Your task to perform on an android device: turn on improve location accuracy Image 0: 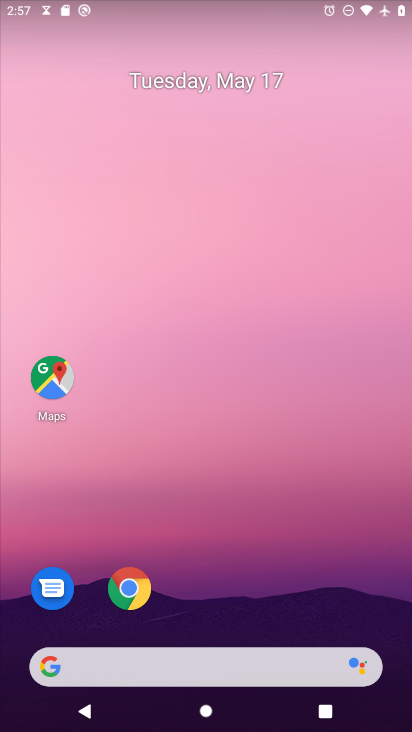
Step 0: drag from (182, 572) to (107, 99)
Your task to perform on an android device: turn on improve location accuracy Image 1: 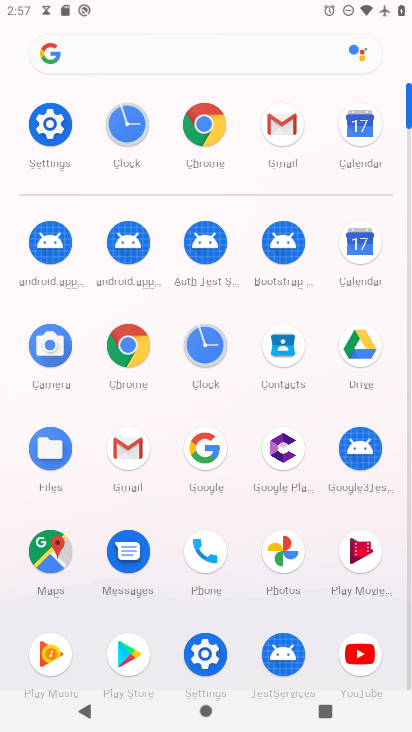
Step 1: click (211, 661)
Your task to perform on an android device: turn on improve location accuracy Image 2: 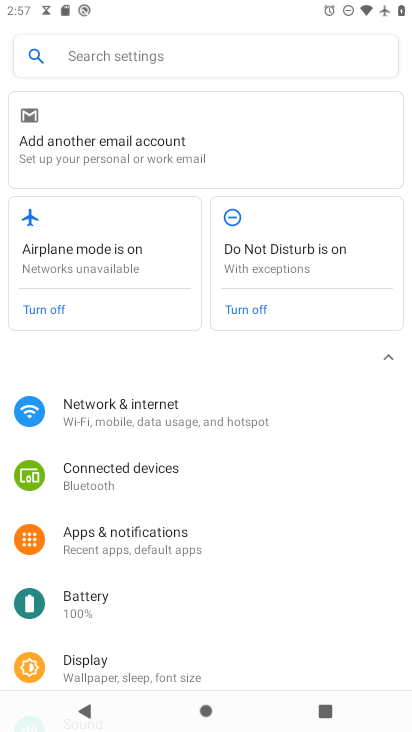
Step 2: drag from (209, 661) to (208, 344)
Your task to perform on an android device: turn on improve location accuracy Image 3: 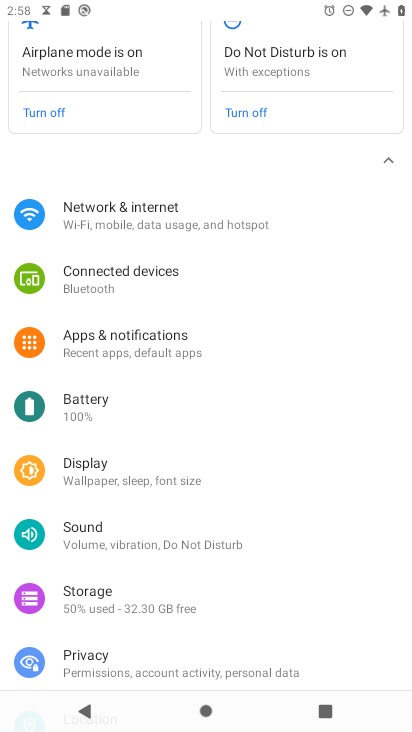
Step 3: click (395, 158)
Your task to perform on an android device: turn on improve location accuracy Image 4: 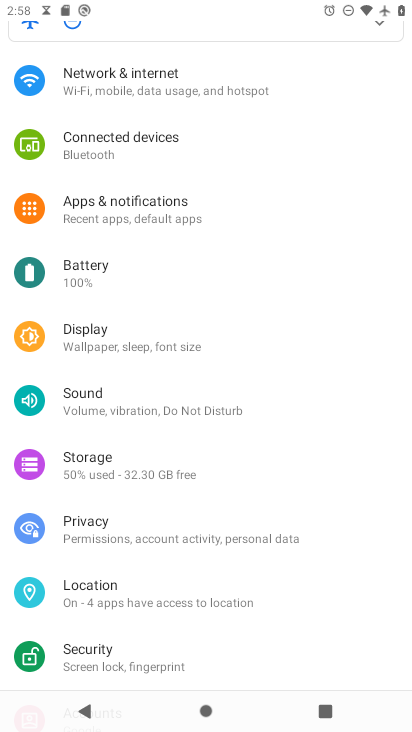
Step 4: click (114, 596)
Your task to perform on an android device: turn on improve location accuracy Image 5: 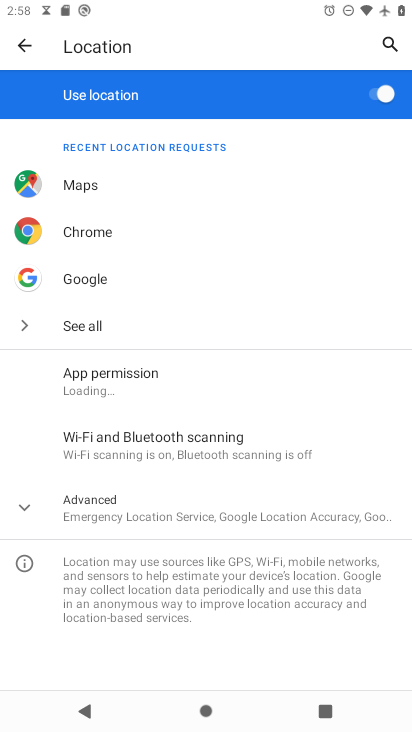
Step 5: click (146, 513)
Your task to perform on an android device: turn on improve location accuracy Image 6: 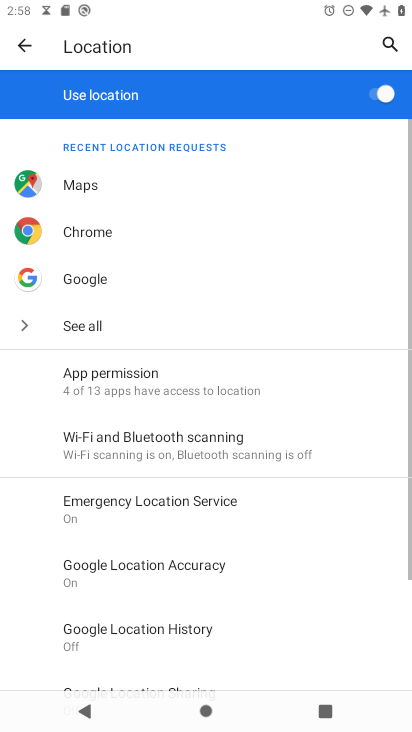
Step 6: click (187, 561)
Your task to perform on an android device: turn on improve location accuracy Image 7: 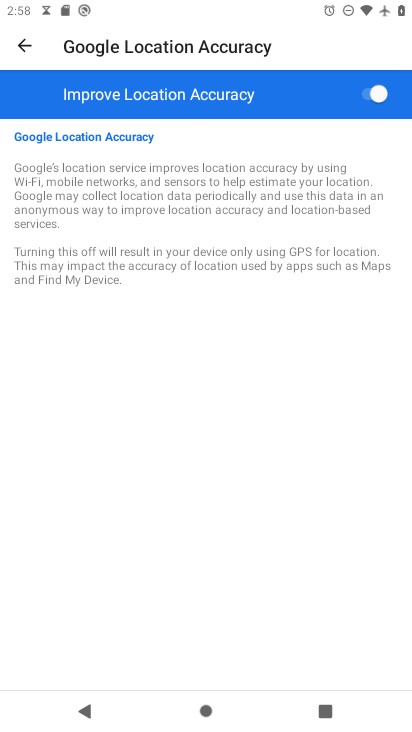
Step 7: task complete